Your task to perform on an android device: delete the emails in spam in the gmail app Image 0: 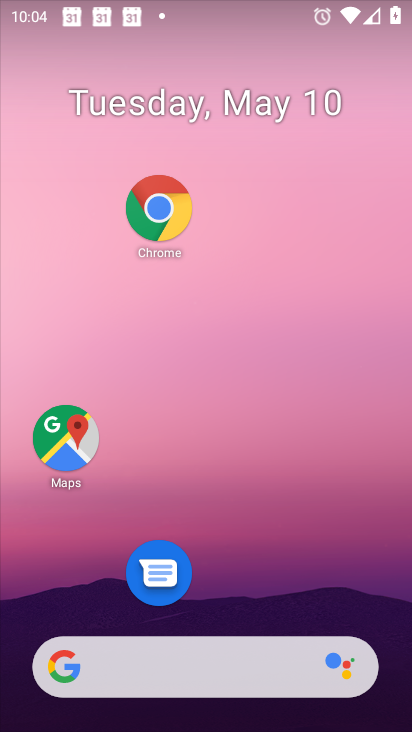
Step 0: drag from (245, 688) to (386, 243)
Your task to perform on an android device: delete the emails in spam in the gmail app Image 1: 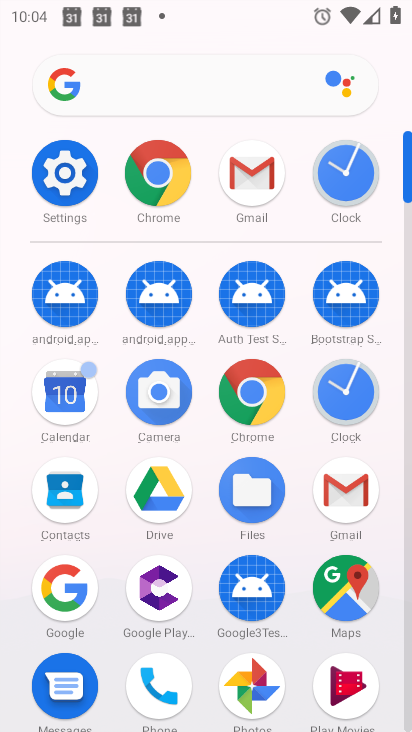
Step 1: click (329, 499)
Your task to perform on an android device: delete the emails in spam in the gmail app Image 2: 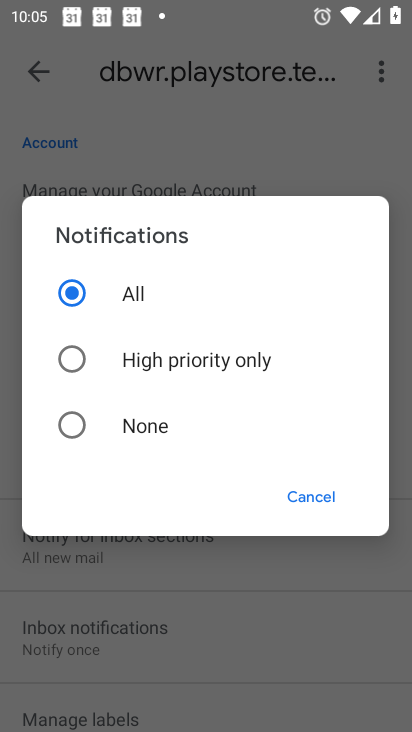
Step 2: click (300, 496)
Your task to perform on an android device: delete the emails in spam in the gmail app Image 3: 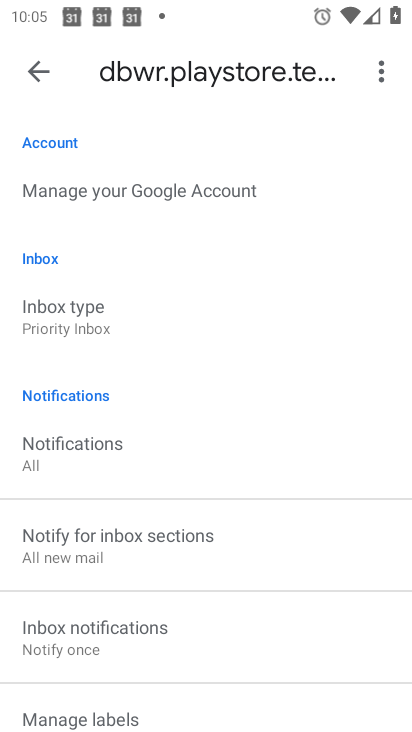
Step 3: click (36, 73)
Your task to perform on an android device: delete the emails in spam in the gmail app Image 4: 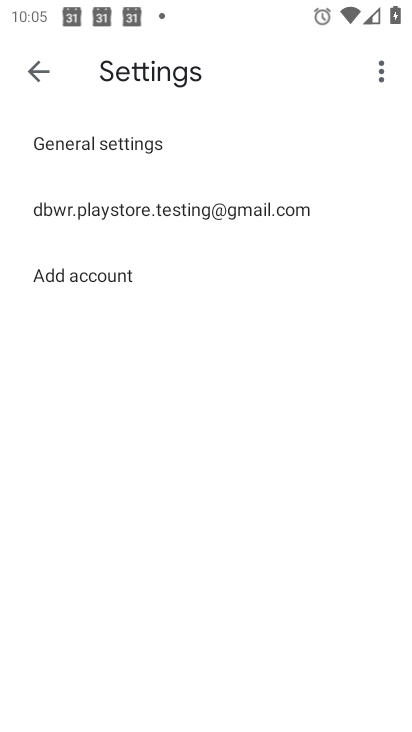
Step 4: click (27, 88)
Your task to perform on an android device: delete the emails in spam in the gmail app Image 5: 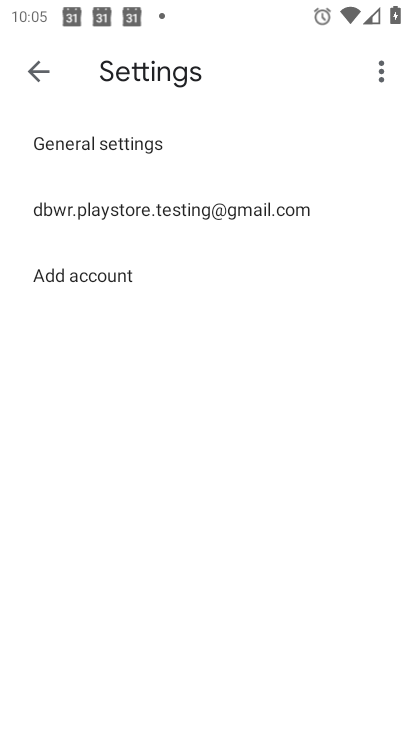
Step 5: click (39, 83)
Your task to perform on an android device: delete the emails in spam in the gmail app Image 6: 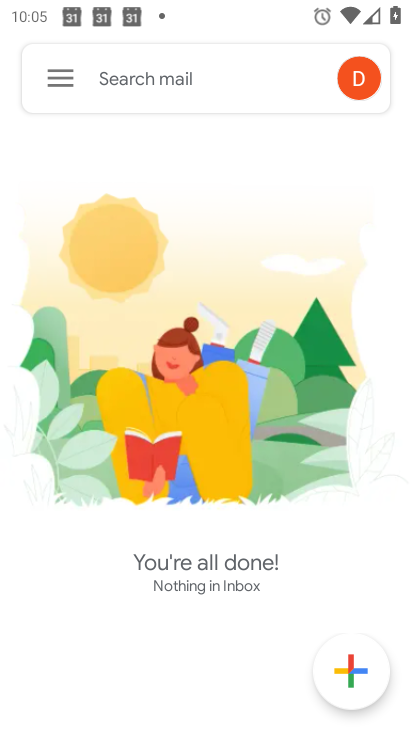
Step 6: click (48, 79)
Your task to perform on an android device: delete the emails in spam in the gmail app Image 7: 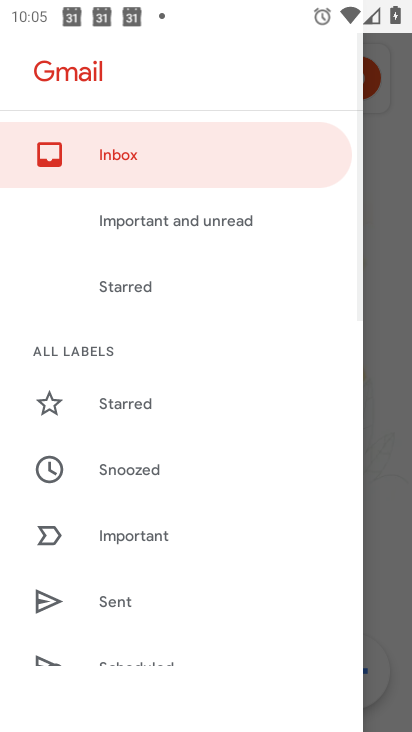
Step 7: drag from (161, 600) to (235, 391)
Your task to perform on an android device: delete the emails in spam in the gmail app Image 8: 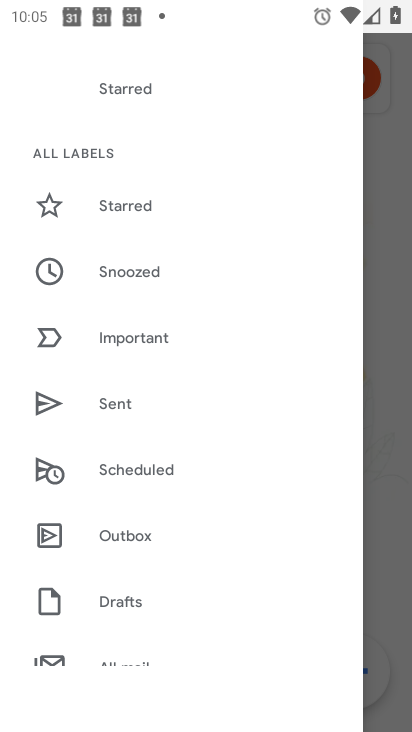
Step 8: drag from (131, 600) to (192, 486)
Your task to perform on an android device: delete the emails in spam in the gmail app Image 9: 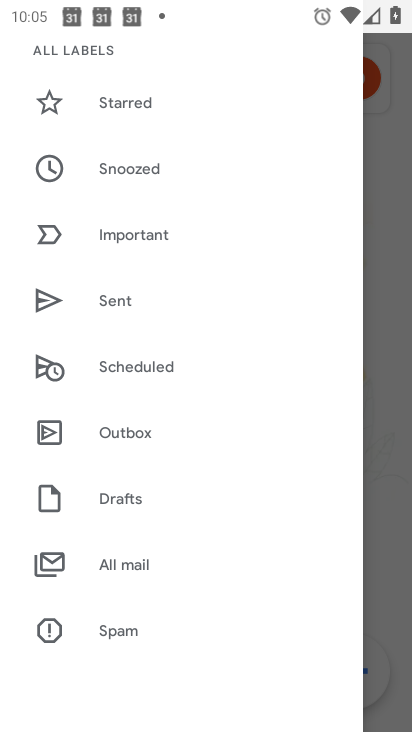
Step 9: click (142, 633)
Your task to perform on an android device: delete the emails in spam in the gmail app Image 10: 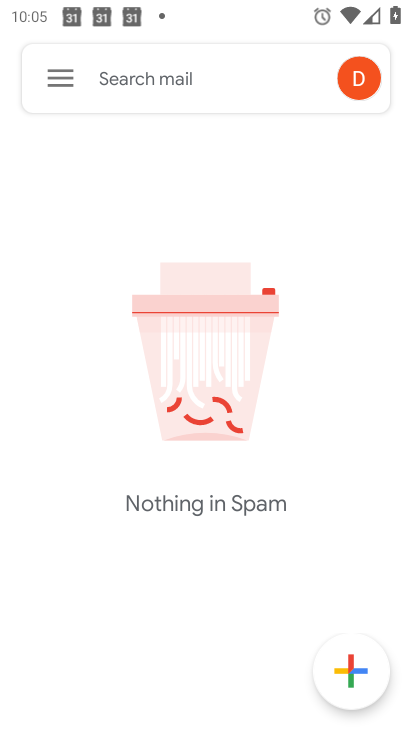
Step 10: task complete